Your task to perform on an android device: Clear all items from cart on ebay. Image 0: 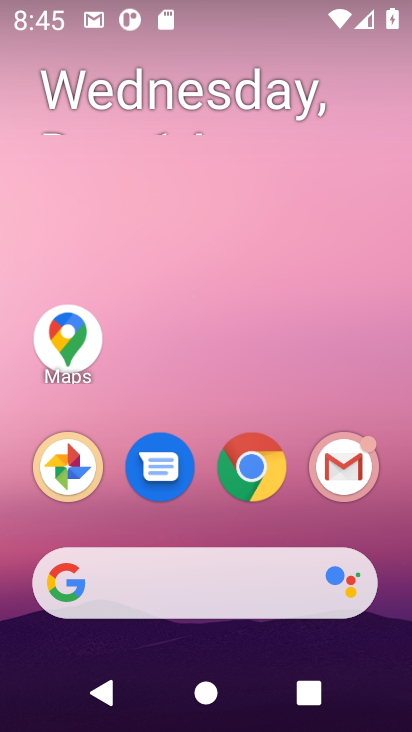
Step 0: click (268, 479)
Your task to perform on an android device: Clear all items from cart on ebay. Image 1: 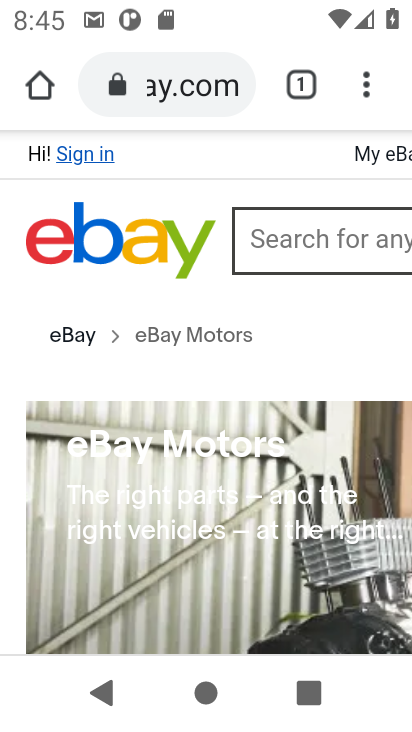
Step 1: click (190, 86)
Your task to perform on an android device: Clear all items from cart on ebay. Image 2: 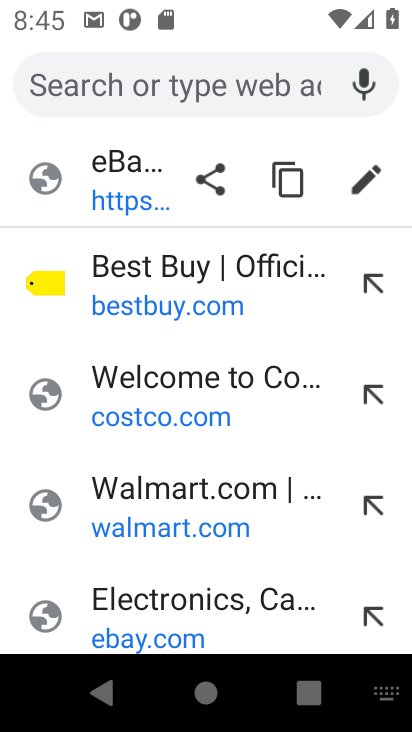
Step 2: press back button
Your task to perform on an android device: Clear all items from cart on ebay. Image 3: 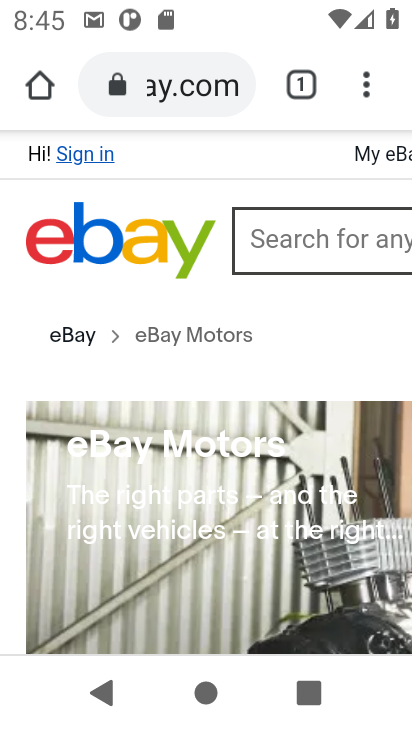
Step 3: drag from (360, 172) to (0, 178)
Your task to perform on an android device: Clear all items from cart on ebay. Image 4: 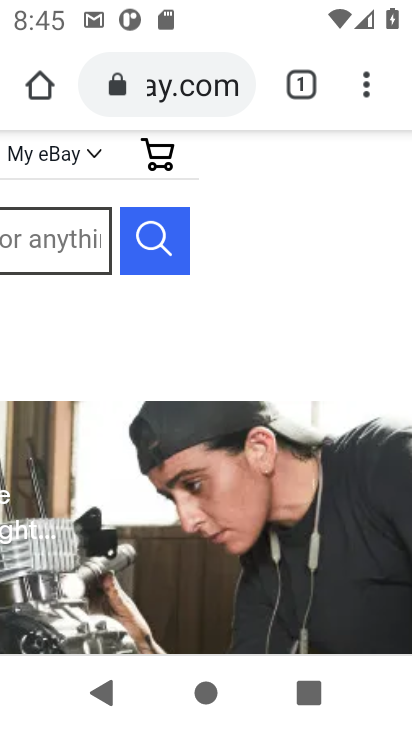
Step 4: click (156, 166)
Your task to perform on an android device: Clear all items from cart on ebay. Image 5: 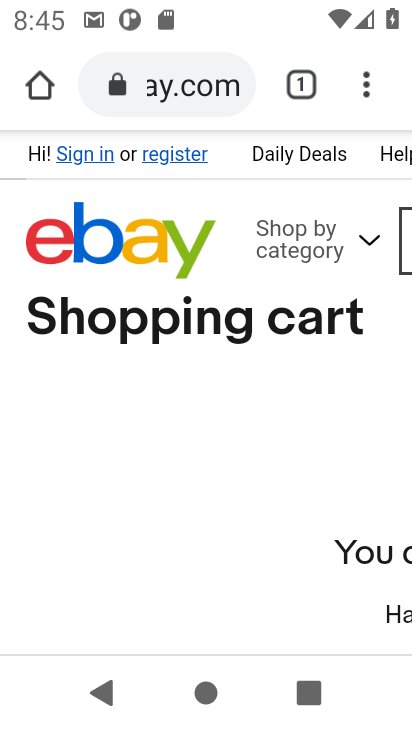
Step 5: task complete